Your task to perform on an android device: What's on my calendar tomorrow? Image 0: 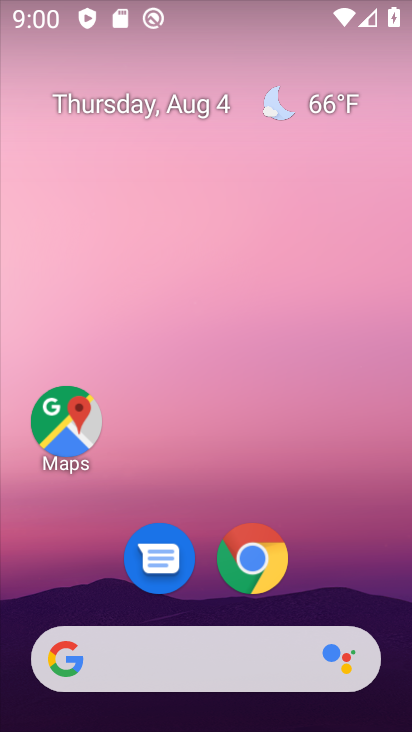
Step 0: click (346, 47)
Your task to perform on an android device: What's on my calendar tomorrow? Image 1: 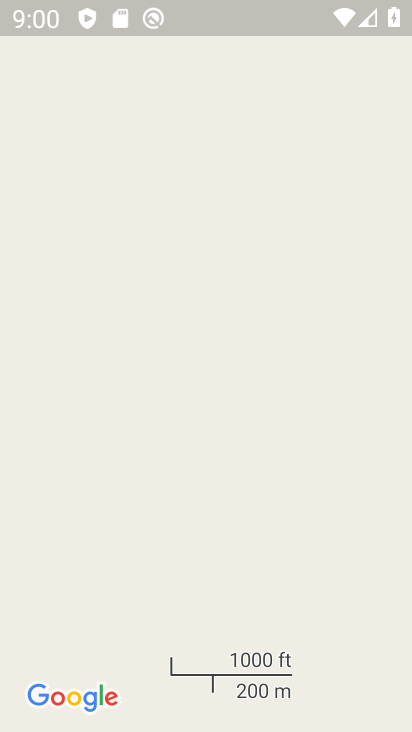
Step 1: press home button
Your task to perform on an android device: What's on my calendar tomorrow? Image 2: 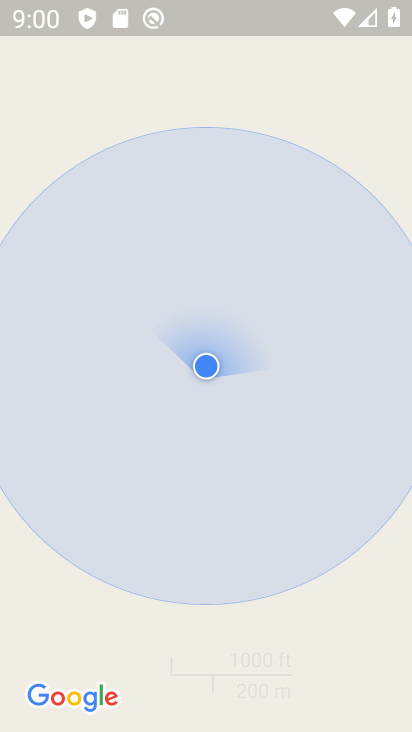
Step 2: press home button
Your task to perform on an android device: What's on my calendar tomorrow? Image 3: 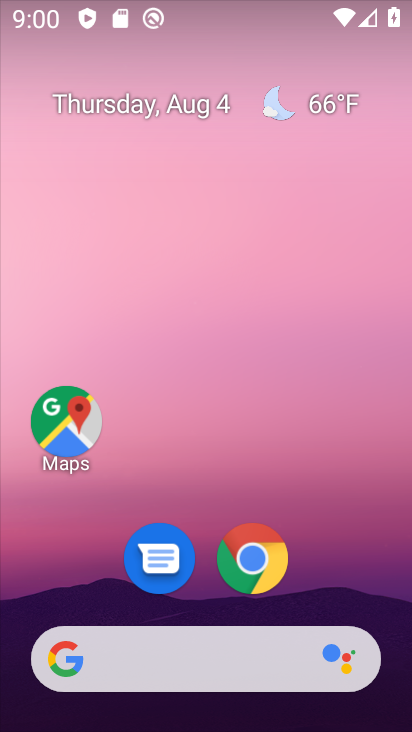
Step 3: drag from (362, 604) to (245, 70)
Your task to perform on an android device: What's on my calendar tomorrow? Image 4: 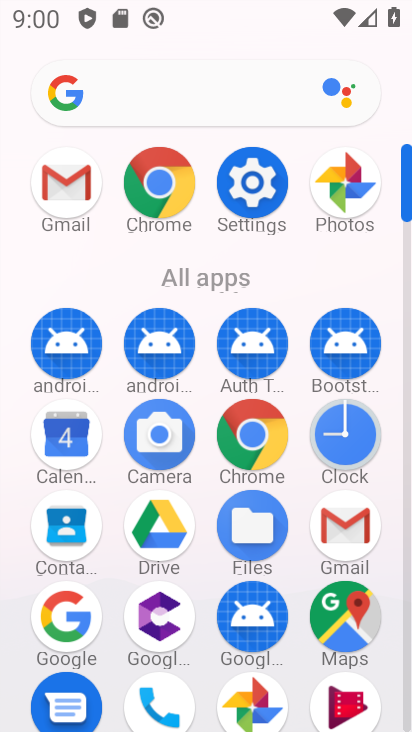
Step 4: click (62, 428)
Your task to perform on an android device: What's on my calendar tomorrow? Image 5: 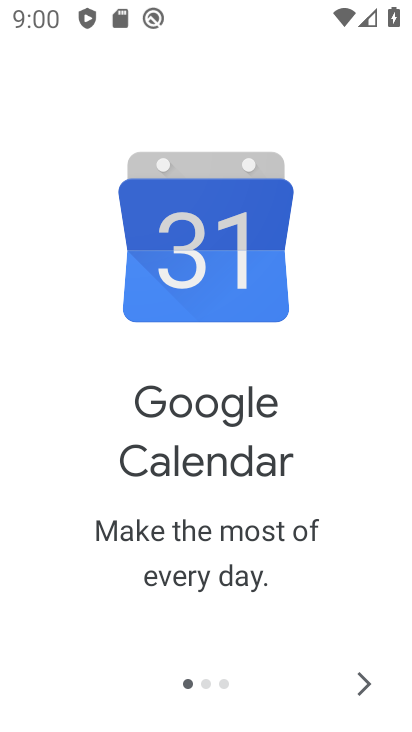
Step 5: click (357, 680)
Your task to perform on an android device: What's on my calendar tomorrow? Image 6: 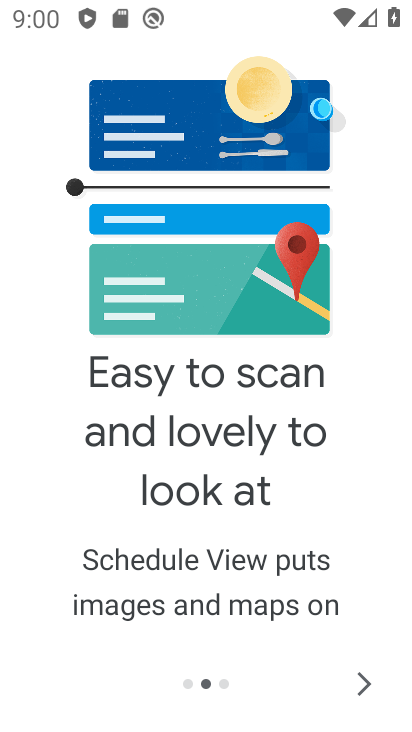
Step 6: click (357, 680)
Your task to perform on an android device: What's on my calendar tomorrow? Image 7: 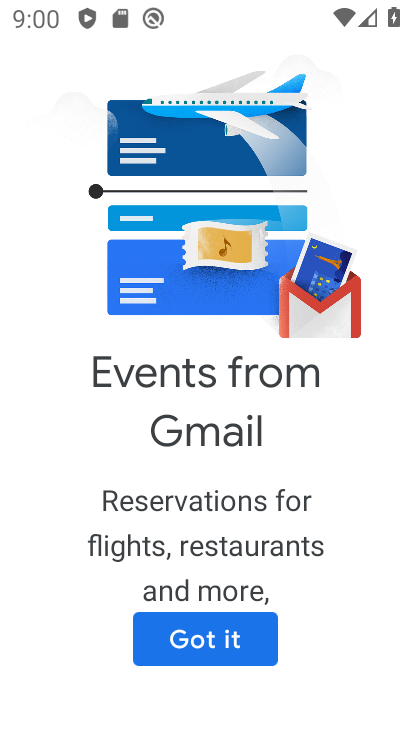
Step 7: click (165, 643)
Your task to perform on an android device: What's on my calendar tomorrow? Image 8: 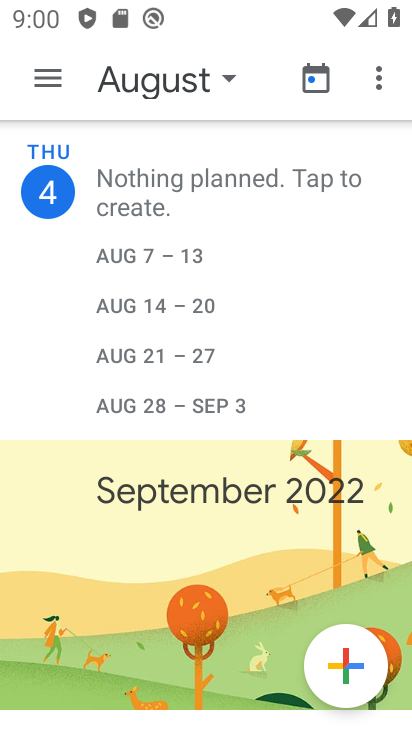
Step 8: click (51, 74)
Your task to perform on an android device: What's on my calendar tomorrow? Image 9: 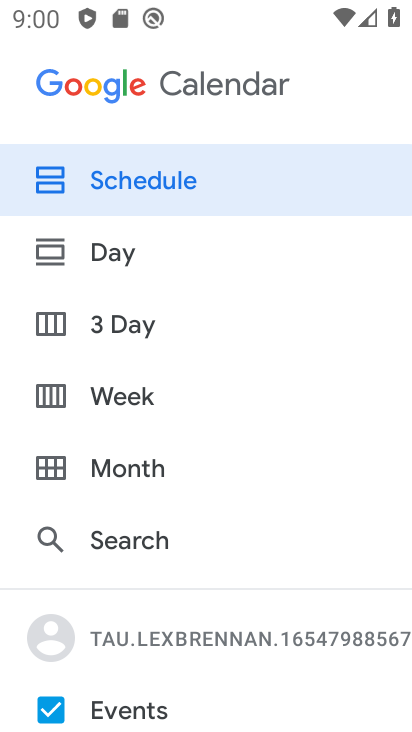
Step 9: click (125, 329)
Your task to perform on an android device: What's on my calendar tomorrow? Image 10: 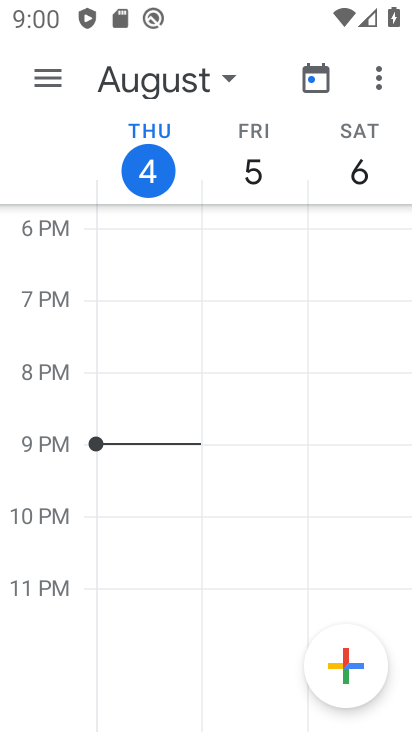
Step 10: click (260, 165)
Your task to perform on an android device: What's on my calendar tomorrow? Image 11: 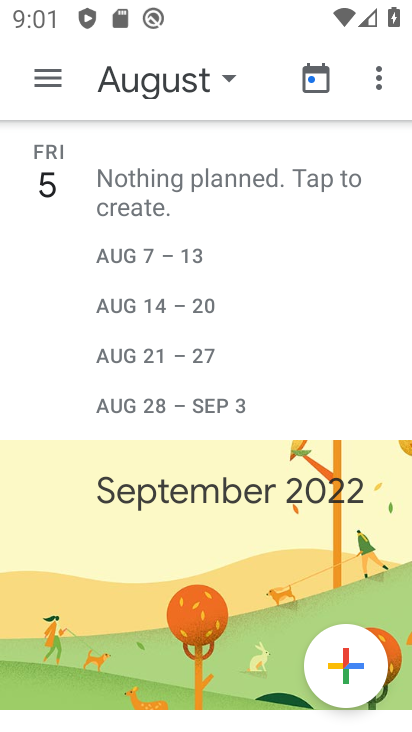
Step 11: task complete